Your task to perform on an android device: empty trash in google photos Image 0: 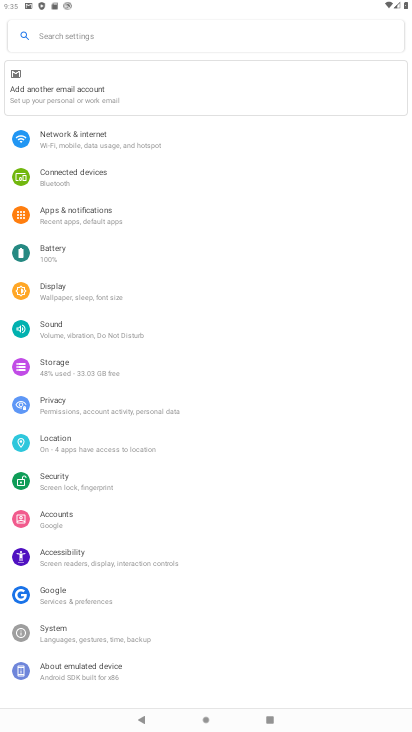
Step 0: press home button
Your task to perform on an android device: empty trash in google photos Image 1: 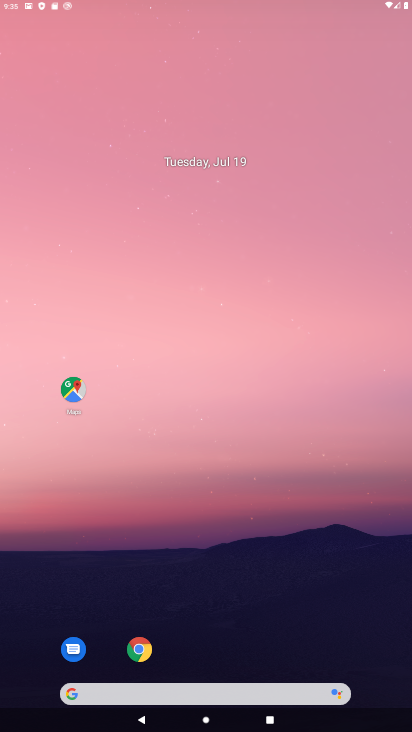
Step 1: drag from (387, 683) to (252, 84)
Your task to perform on an android device: empty trash in google photos Image 2: 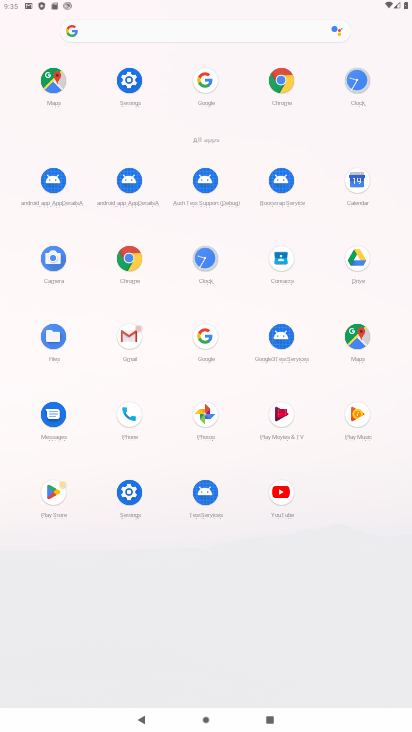
Step 2: click (203, 419)
Your task to perform on an android device: empty trash in google photos Image 3: 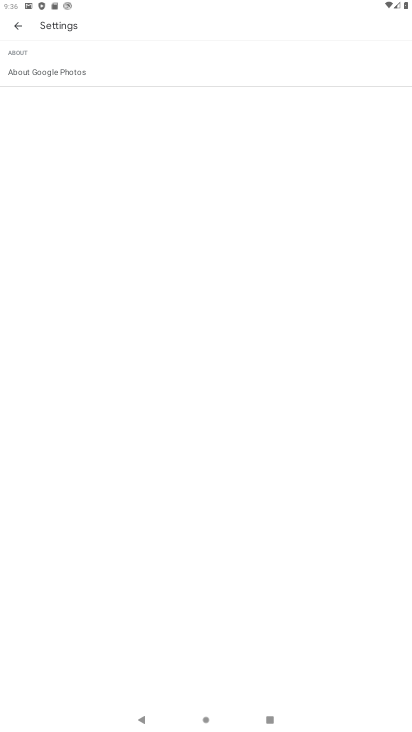
Step 3: press back button
Your task to perform on an android device: empty trash in google photos Image 4: 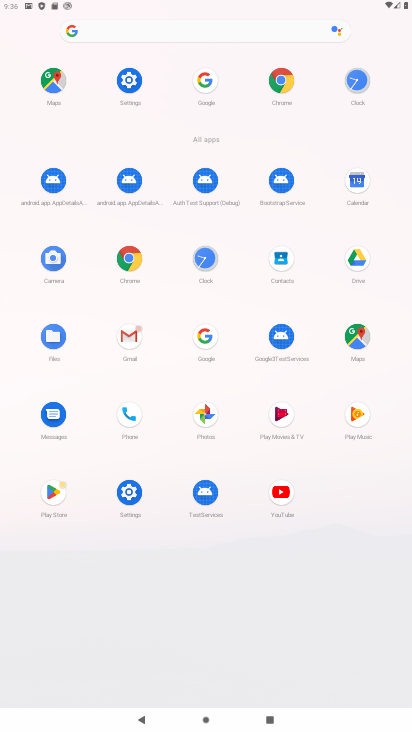
Step 4: click (206, 416)
Your task to perform on an android device: empty trash in google photos Image 5: 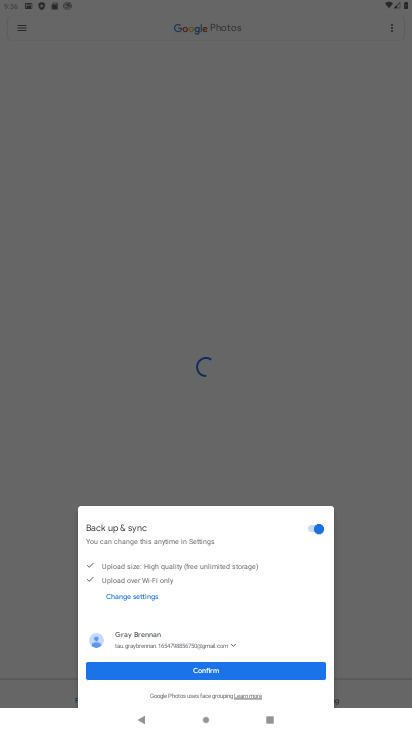
Step 5: click (221, 668)
Your task to perform on an android device: empty trash in google photos Image 6: 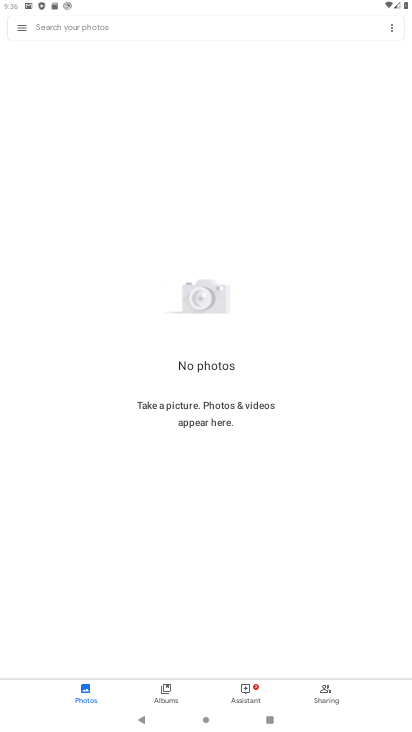
Step 6: click (15, 29)
Your task to perform on an android device: empty trash in google photos Image 7: 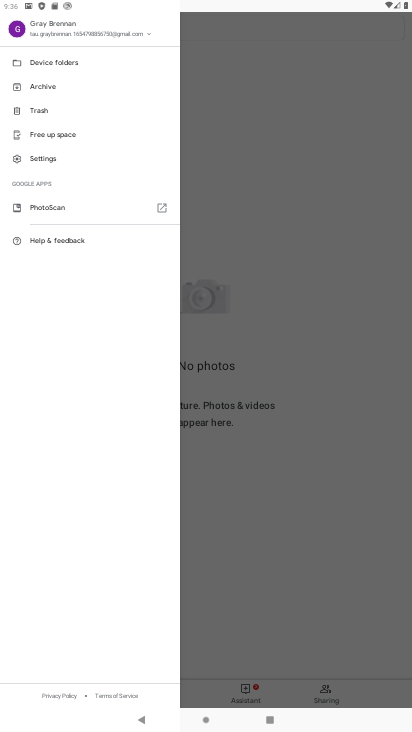
Step 7: click (45, 111)
Your task to perform on an android device: empty trash in google photos Image 8: 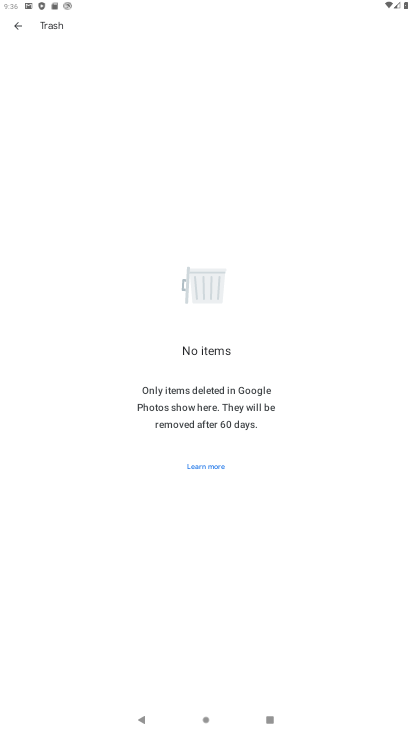
Step 8: task complete